Your task to perform on an android device: change text size in settings app Image 0: 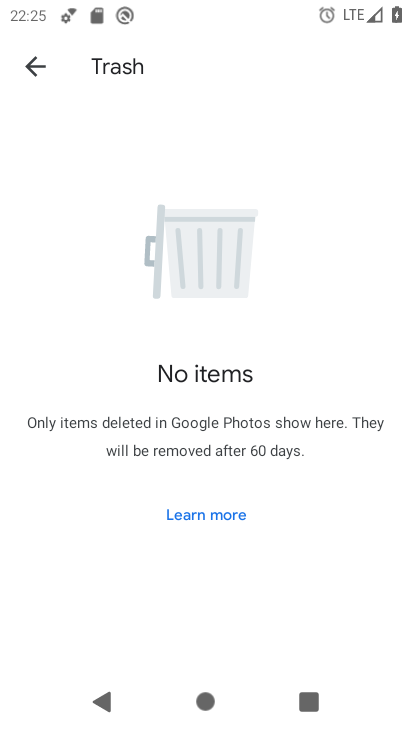
Step 0: press home button
Your task to perform on an android device: change text size in settings app Image 1: 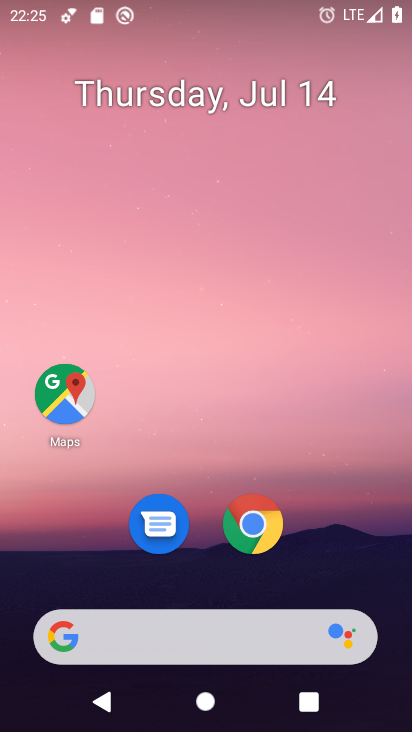
Step 1: drag from (309, 561) to (342, 8)
Your task to perform on an android device: change text size in settings app Image 2: 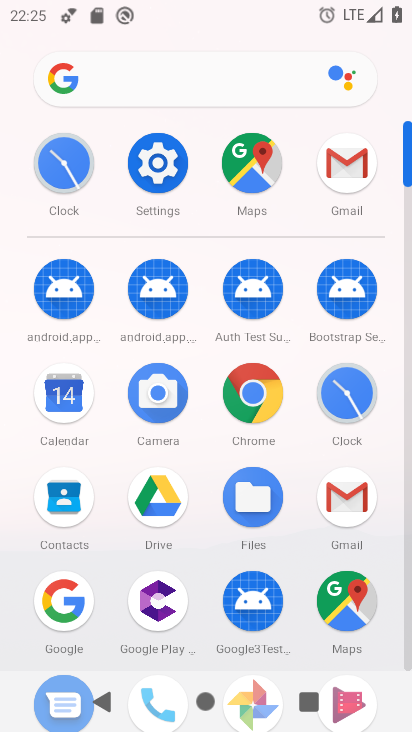
Step 2: click (175, 163)
Your task to perform on an android device: change text size in settings app Image 3: 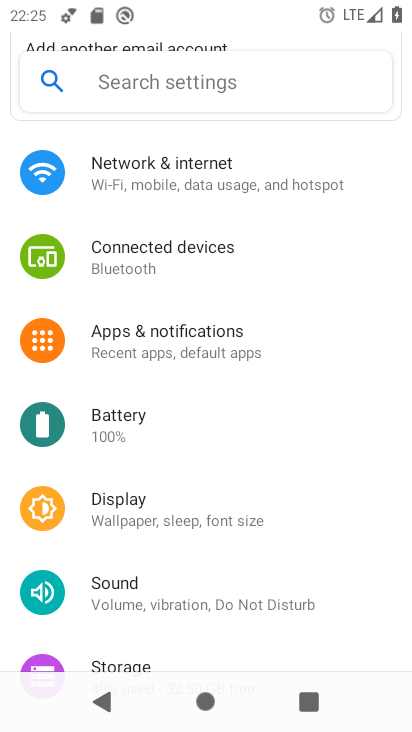
Step 3: click (202, 507)
Your task to perform on an android device: change text size in settings app Image 4: 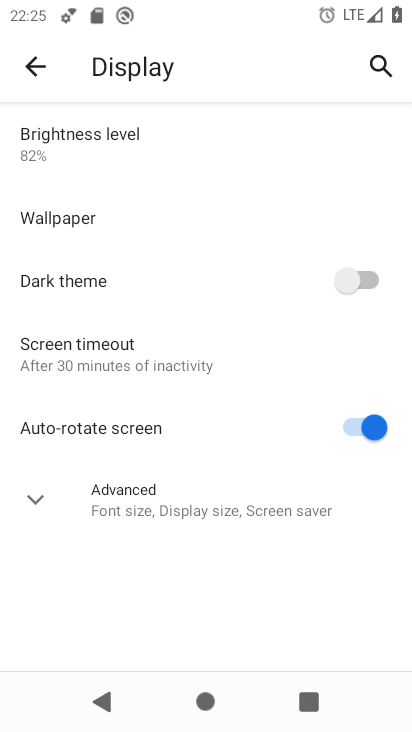
Step 4: click (34, 495)
Your task to perform on an android device: change text size in settings app Image 5: 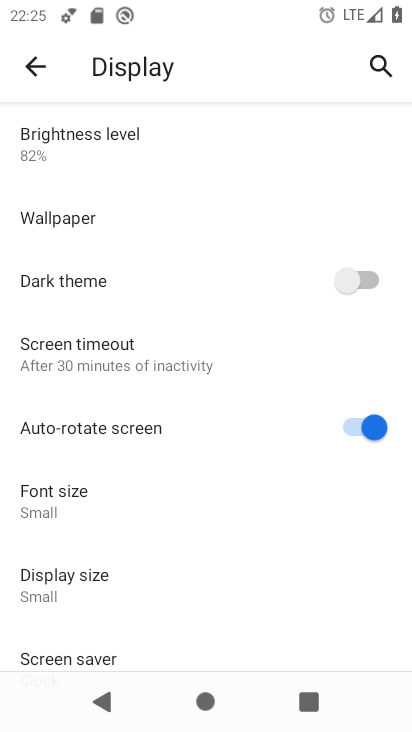
Step 5: click (71, 500)
Your task to perform on an android device: change text size in settings app Image 6: 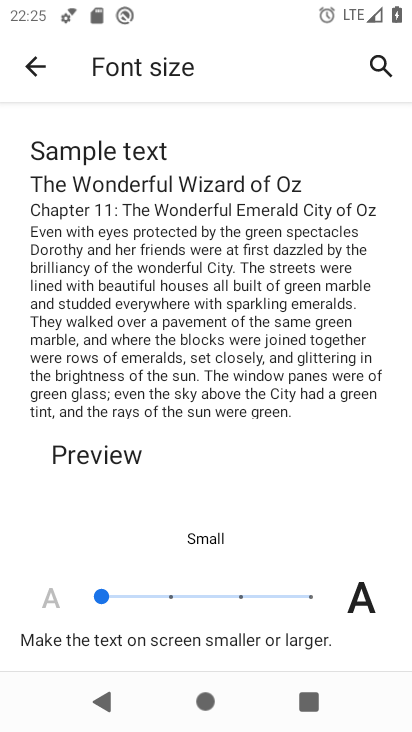
Step 6: click (163, 592)
Your task to perform on an android device: change text size in settings app Image 7: 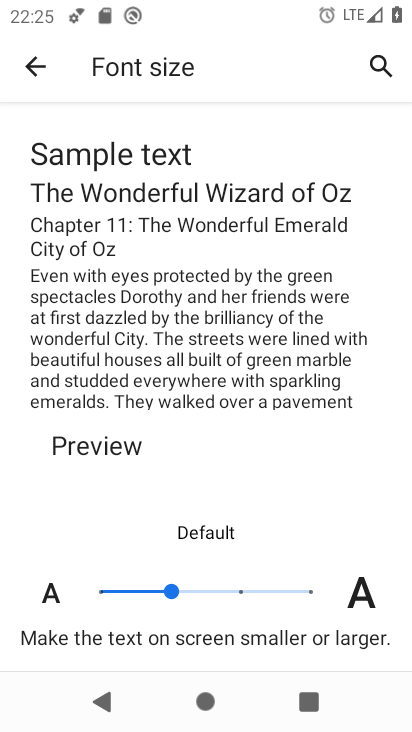
Step 7: task complete